Your task to perform on an android device: stop showing notifications on the lock screen Image 0: 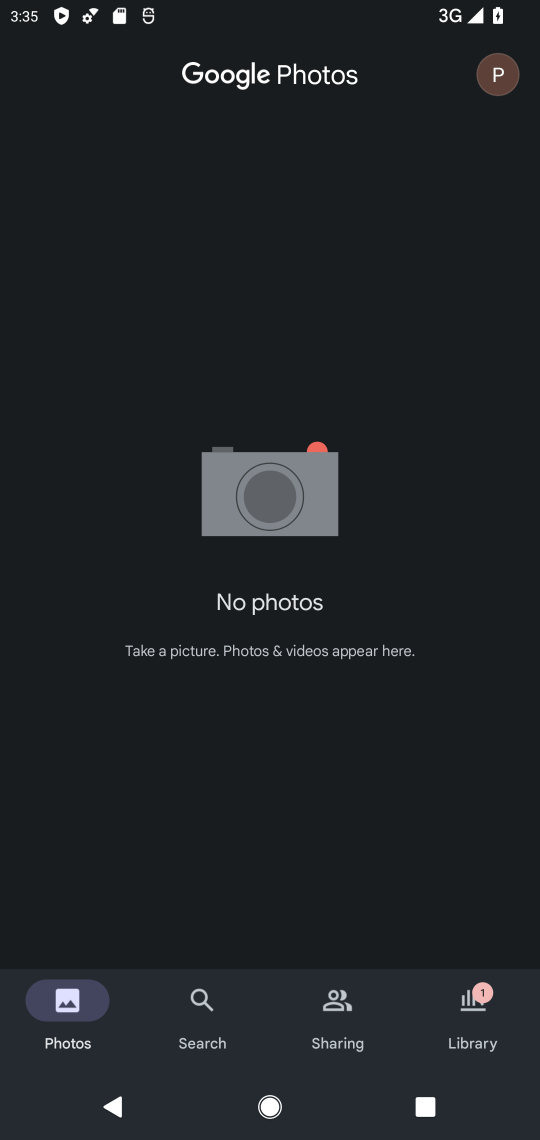
Step 0: press home button
Your task to perform on an android device: stop showing notifications on the lock screen Image 1: 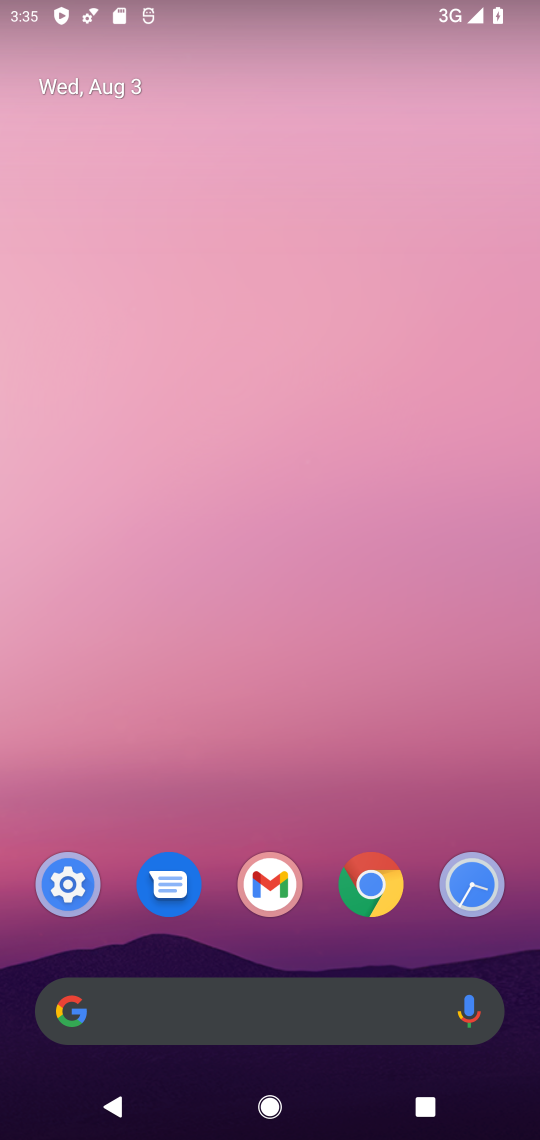
Step 1: click (80, 898)
Your task to perform on an android device: stop showing notifications on the lock screen Image 2: 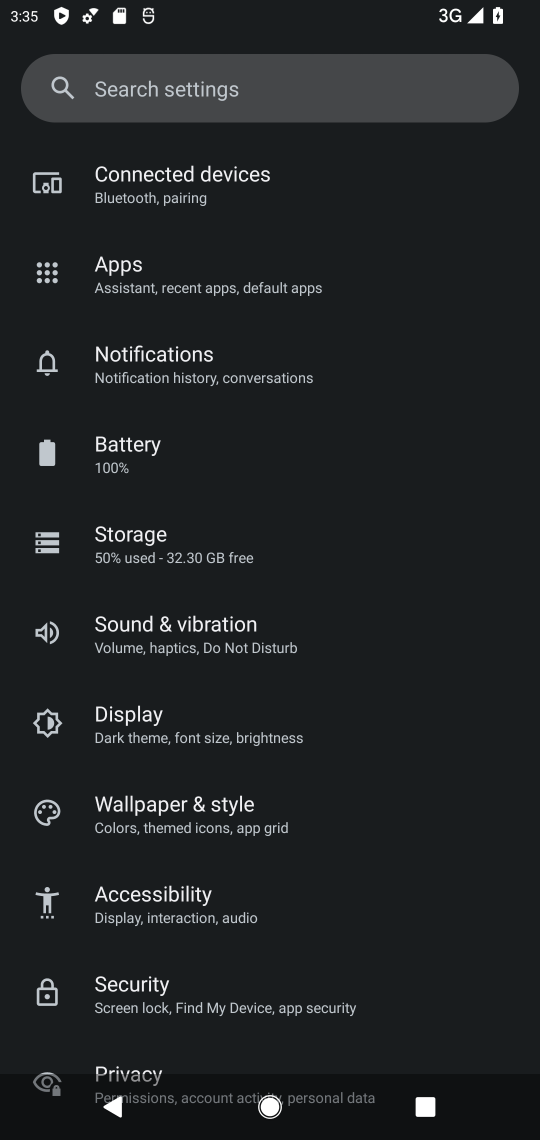
Step 2: click (238, 359)
Your task to perform on an android device: stop showing notifications on the lock screen Image 3: 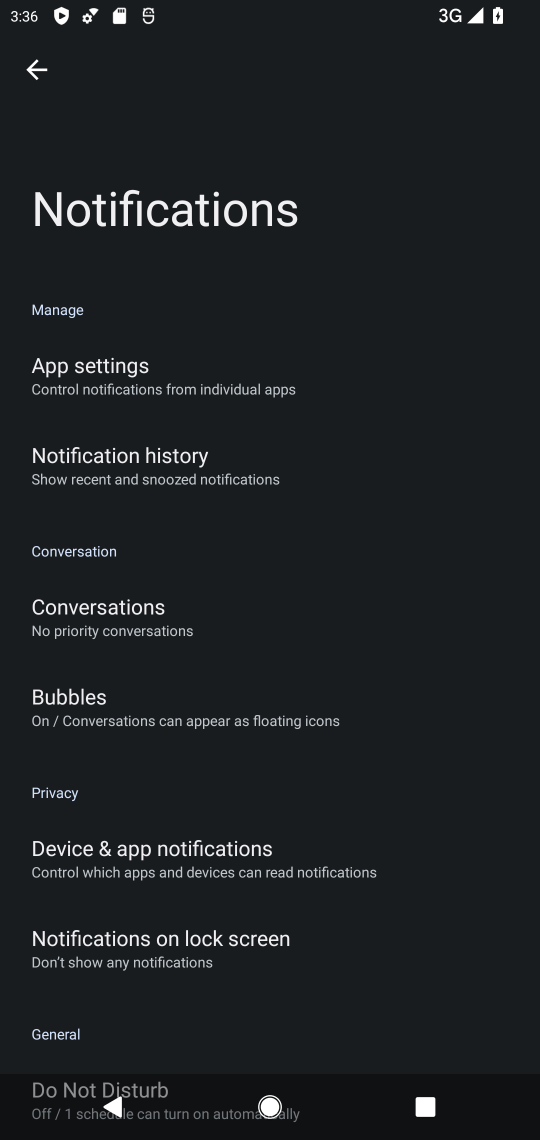
Step 3: task complete